Your task to perform on an android device: make emails show in primary in the gmail app Image 0: 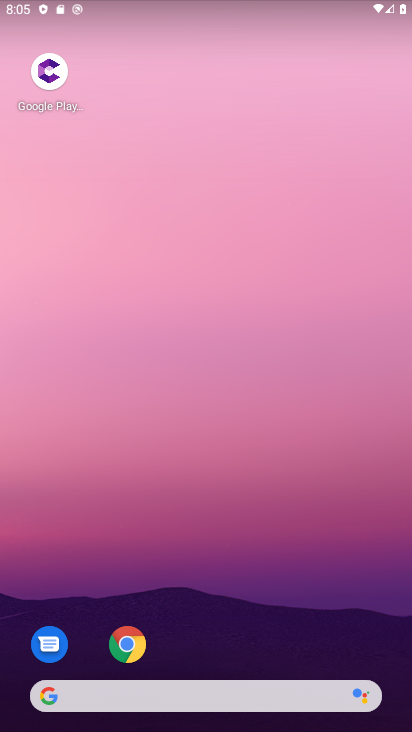
Step 0: drag from (92, 460) to (295, 107)
Your task to perform on an android device: make emails show in primary in the gmail app Image 1: 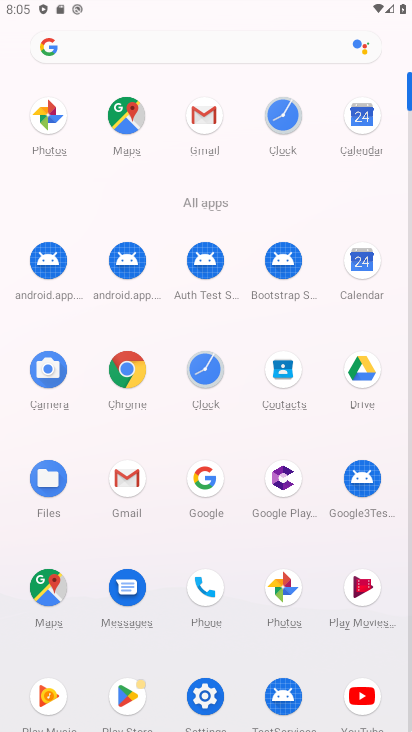
Step 1: click (193, 122)
Your task to perform on an android device: make emails show in primary in the gmail app Image 2: 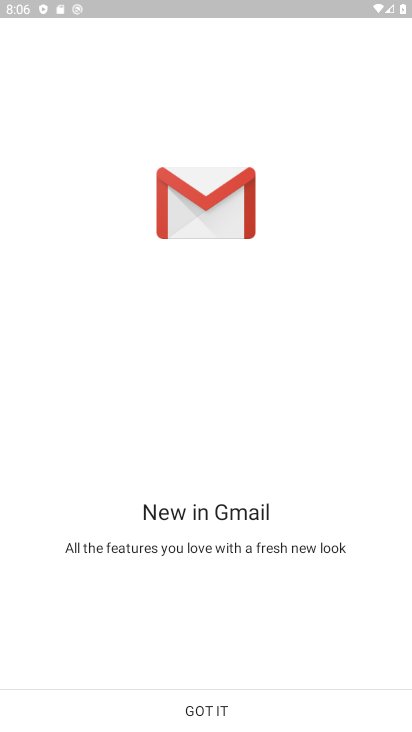
Step 2: click (232, 701)
Your task to perform on an android device: make emails show in primary in the gmail app Image 3: 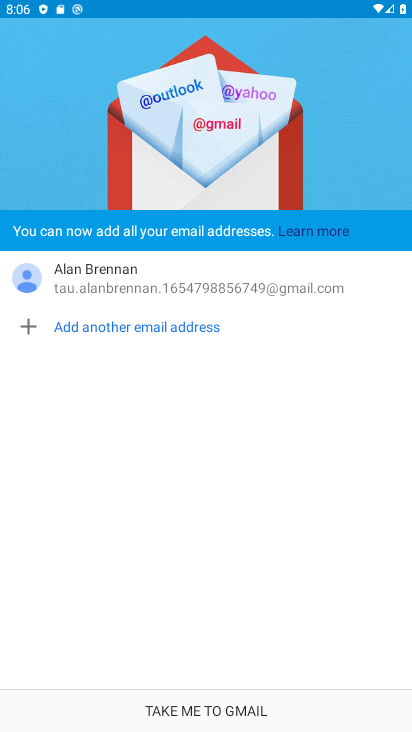
Step 3: click (206, 700)
Your task to perform on an android device: make emails show in primary in the gmail app Image 4: 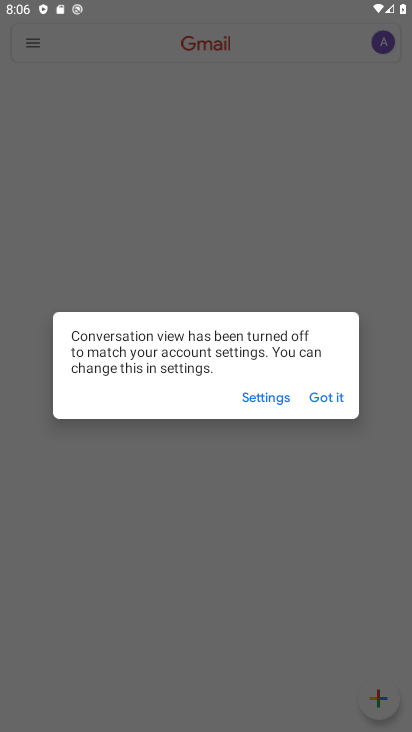
Step 4: click (311, 397)
Your task to perform on an android device: make emails show in primary in the gmail app Image 5: 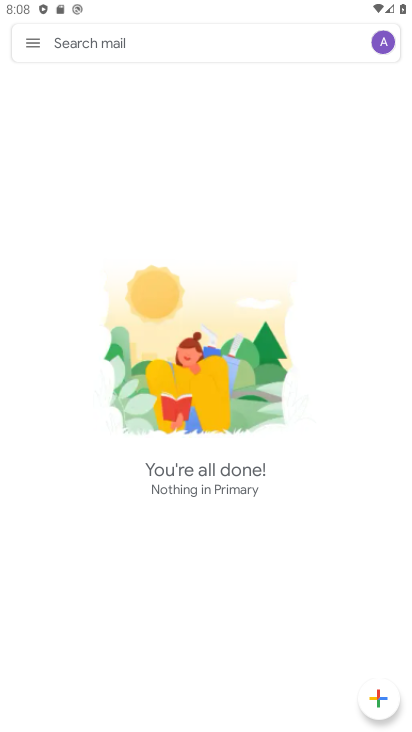
Step 5: task complete